Your task to perform on an android device: manage bookmarks in the chrome app Image 0: 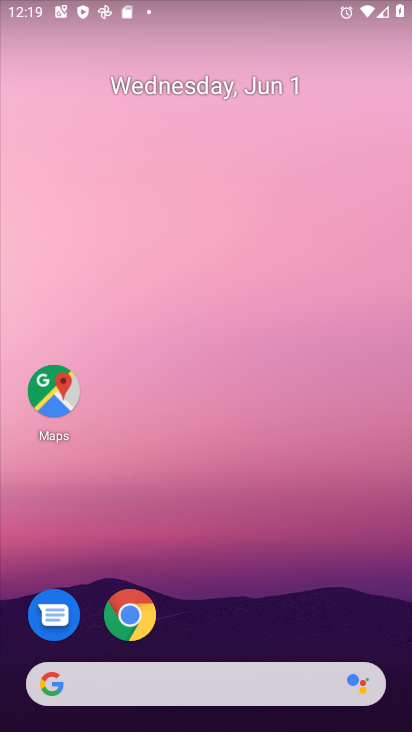
Step 0: drag from (309, 625) to (356, 2)
Your task to perform on an android device: manage bookmarks in the chrome app Image 1: 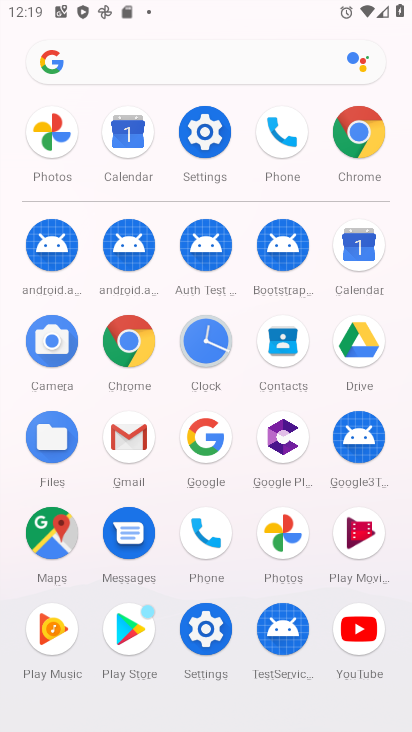
Step 1: click (340, 152)
Your task to perform on an android device: manage bookmarks in the chrome app Image 2: 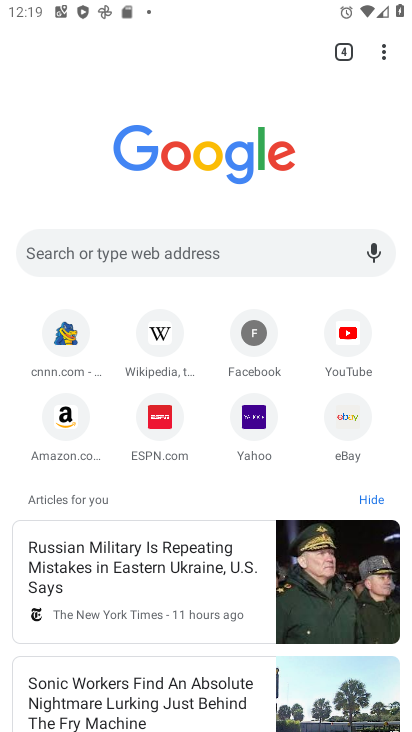
Step 2: task complete